Your task to perform on an android device: What's a good restaurant in San Diego? Image 0: 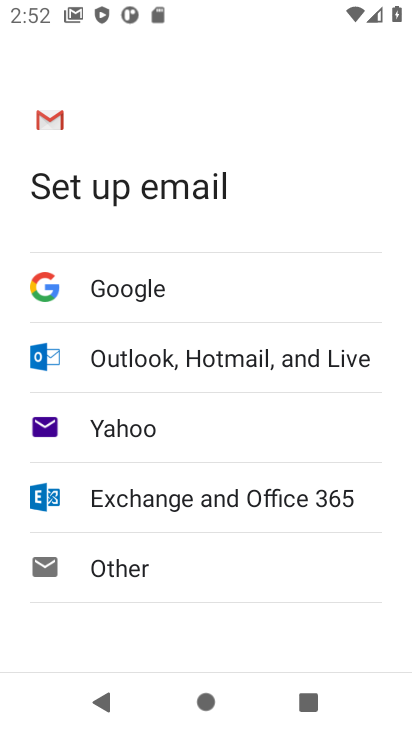
Step 0: press home button
Your task to perform on an android device: What's a good restaurant in San Diego? Image 1: 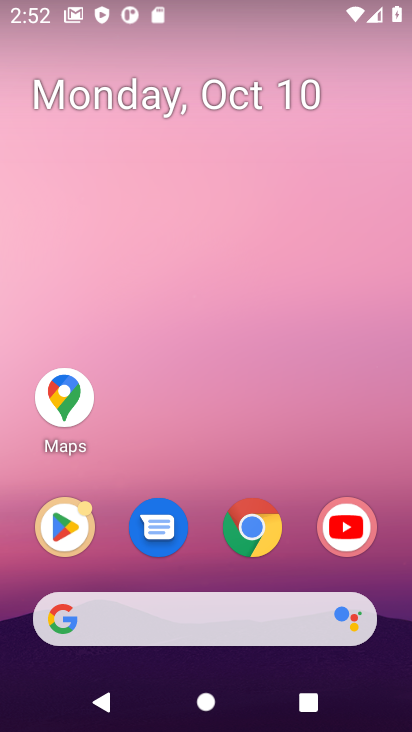
Step 1: click (247, 622)
Your task to perform on an android device: What's a good restaurant in San Diego? Image 2: 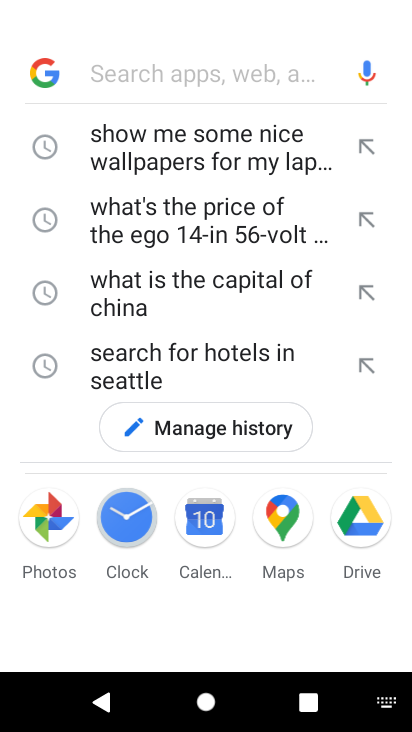
Step 2: type "What's a good restaurant in San Diego?"
Your task to perform on an android device: What's a good restaurant in San Diego? Image 3: 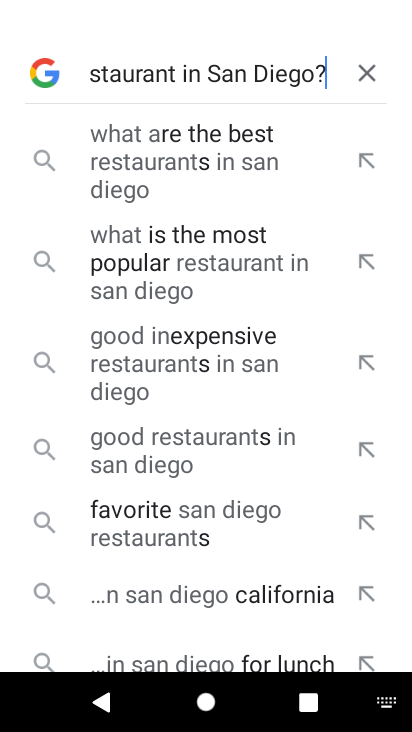
Step 3: press enter
Your task to perform on an android device: What's a good restaurant in San Diego? Image 4: 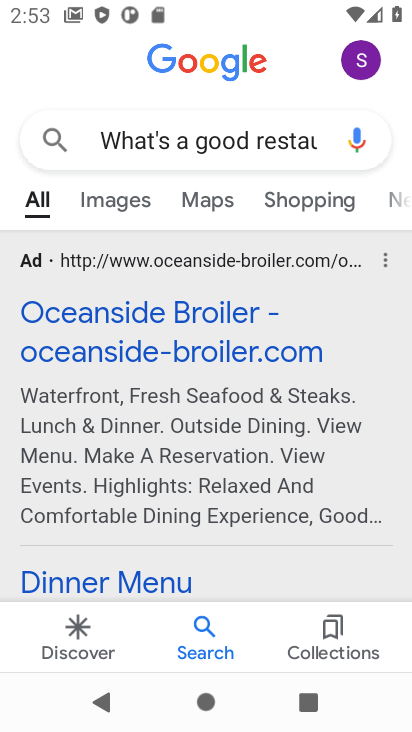
Step 4: click (183, 360)
Your task to perform on an android device: What's a good restaurant in San Diego? Image 5: 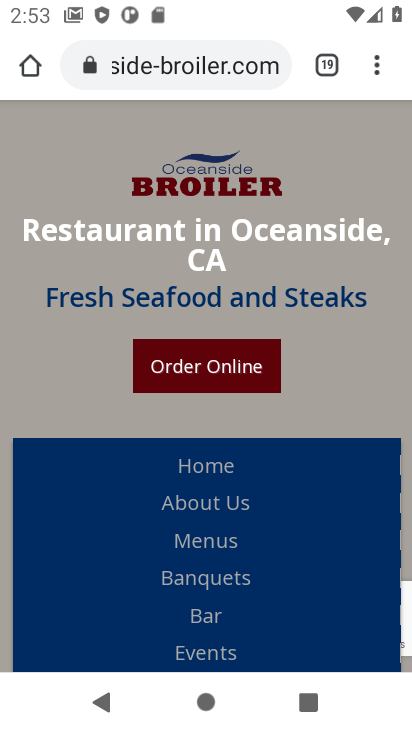
Step 5: task complete